Your task to perform on an android device: Open Reddit.com Image 0: 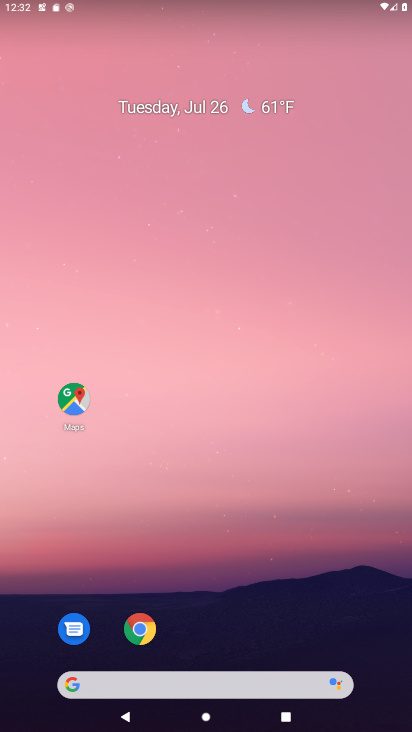
Step 0: click (153, 629)
Your task to perform on an android device: Open Reddit.com Image 1: 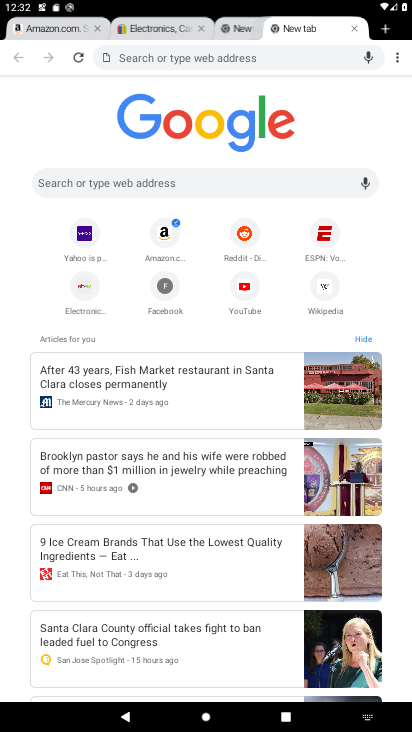
Step 1: click (272, 177)
Your task to perform on an android device: Open Reddit.com Image 2: 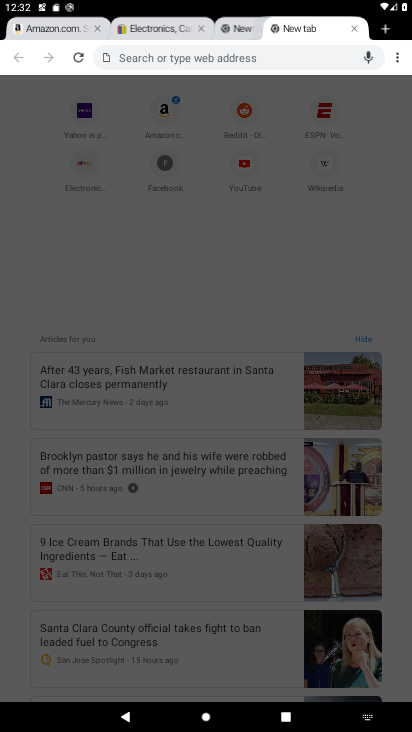
Step 2: type "Reddit.com"
Your task to perform on an android device: Open Reddit.com Image 3: 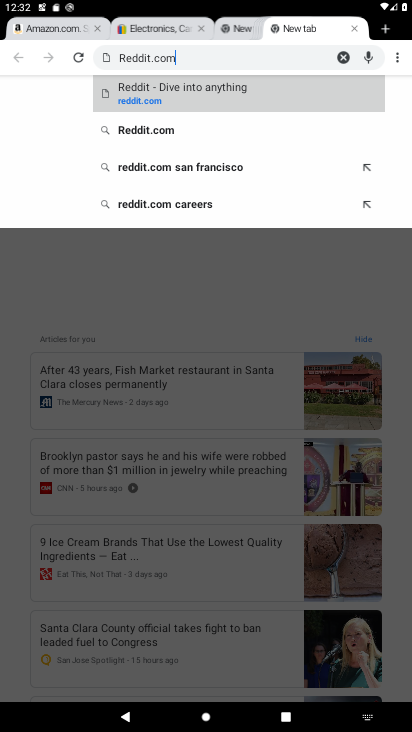
Step 3: type ""
Your task to perform on an android device: Open Reddit.com Image 4: 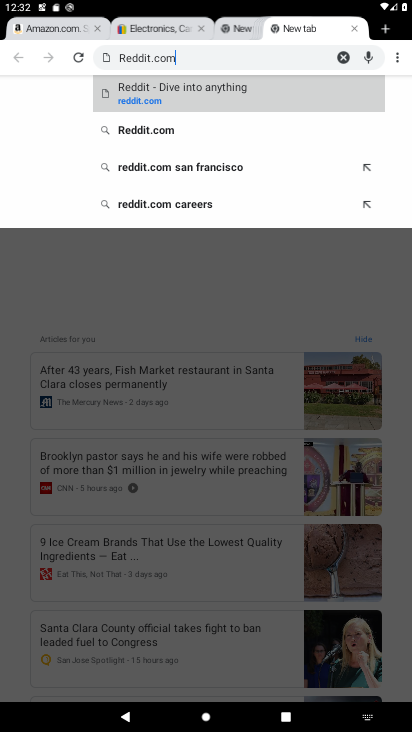
Step 4: click (167, 95)
Your task to perform on an android device: Open Reddit.com Image 5: 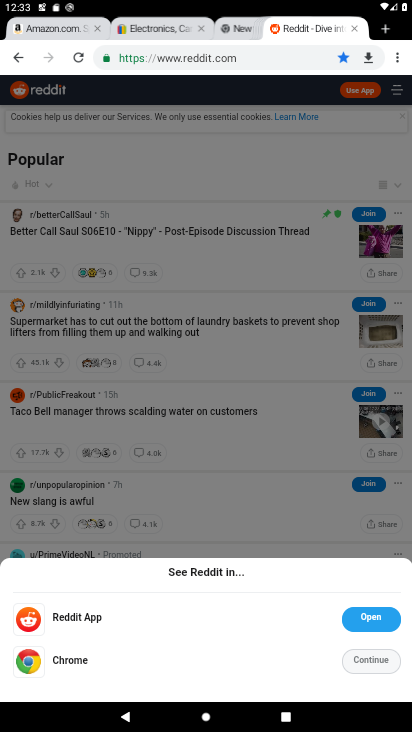
Step 5: task complete